Your task to perform on an android device: Clear the cart on costco.com. Search for sony triple a on costco.com, select the first entry, and add it to the cart. Image 0: 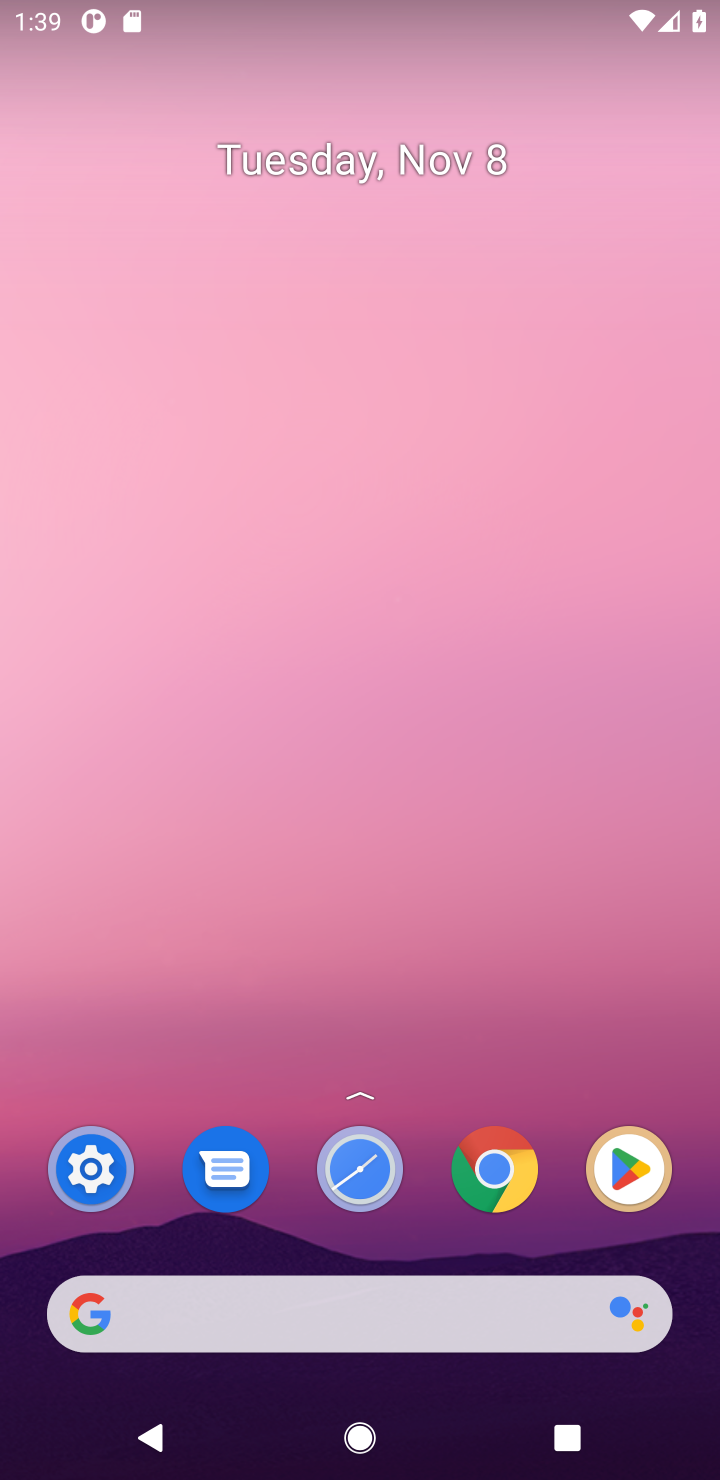
Step 0: click (477, 1163)
Your task to perform on an android device: Clear the cart on costco.com. Search for sony triple a on costco.com, select the first entry, and add it to the cart. Image 1: 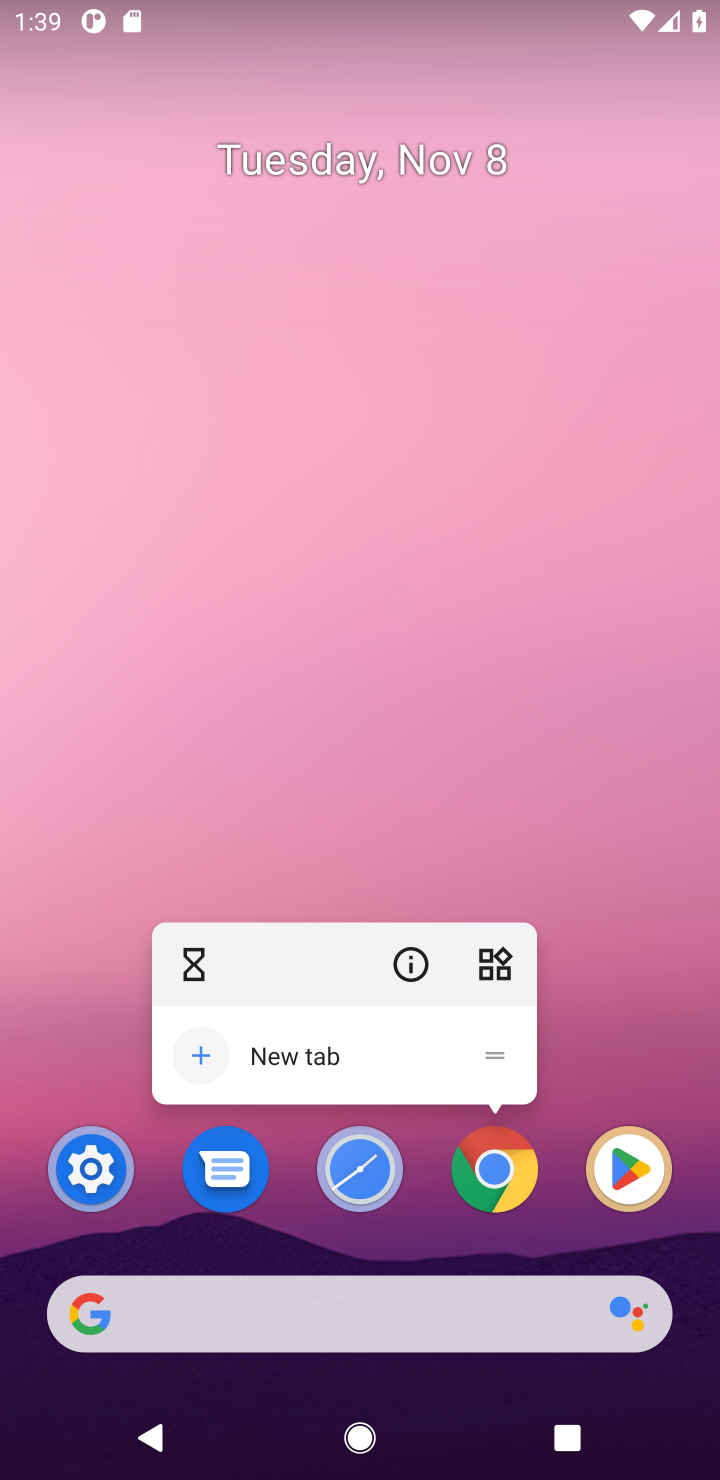
Step 1: click (477, 1164)
Your task to perform on an android device: Clear the cart on costco.com. Search for sony triple a on costco.com, select the first entry, and add it to the cart. Image 2: 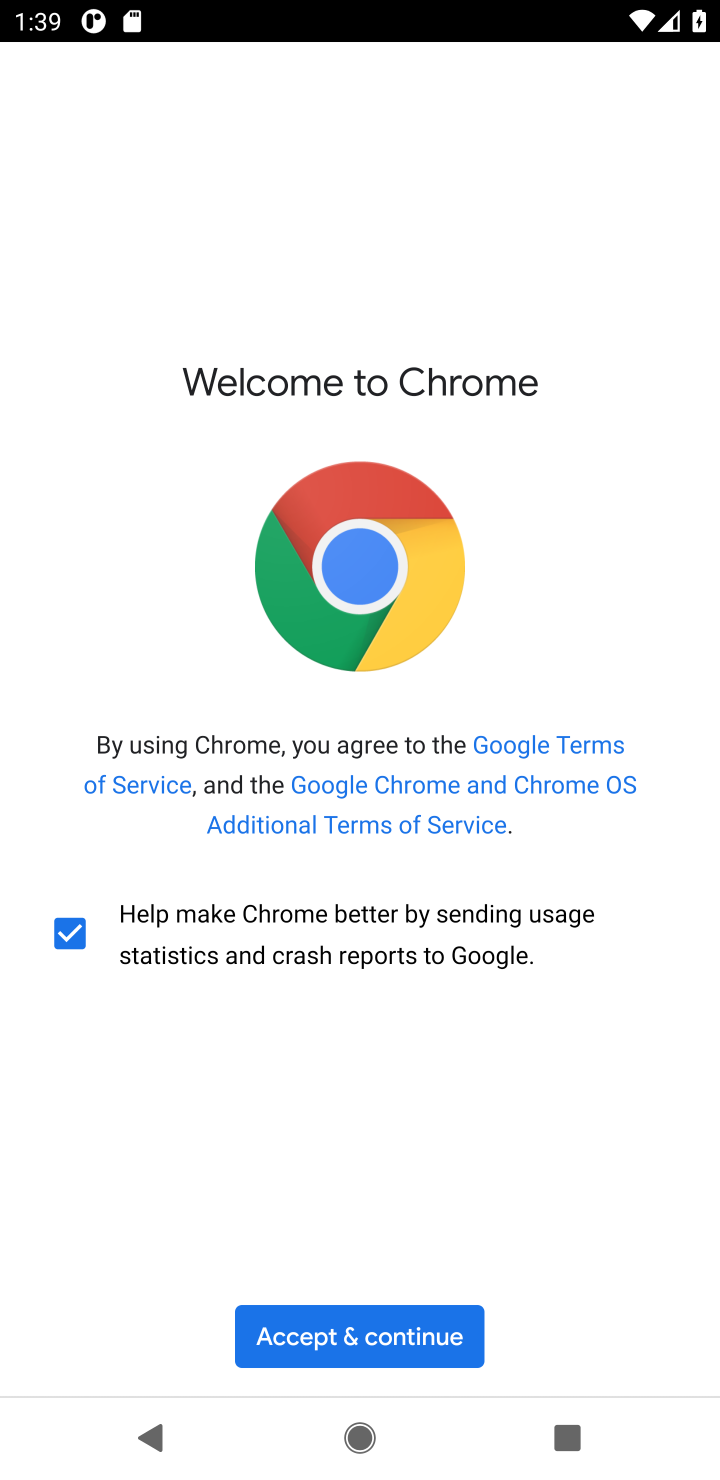
Step 2: click (367, 1333)
Your task to perform on an android device: Clear the cart on costco.com. Search for sony triple a on costco.com, select the first entry, and add it to the cart. Image 3: 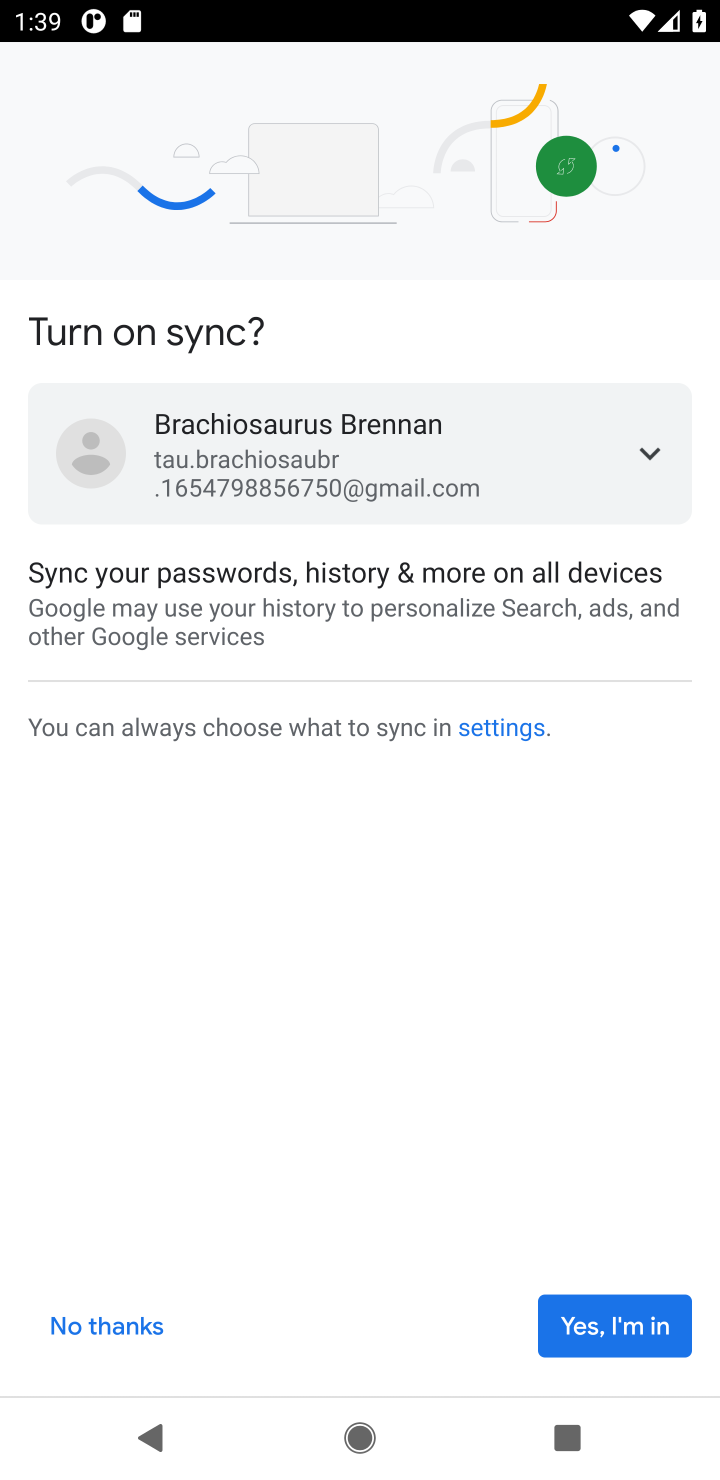
Step 3: click (580, 1332)
Your task to perform on an android device: Clear the cart on costco.com. Search for sony triple a on costco.com, select the first entry, and add it to the cart. Image 4: 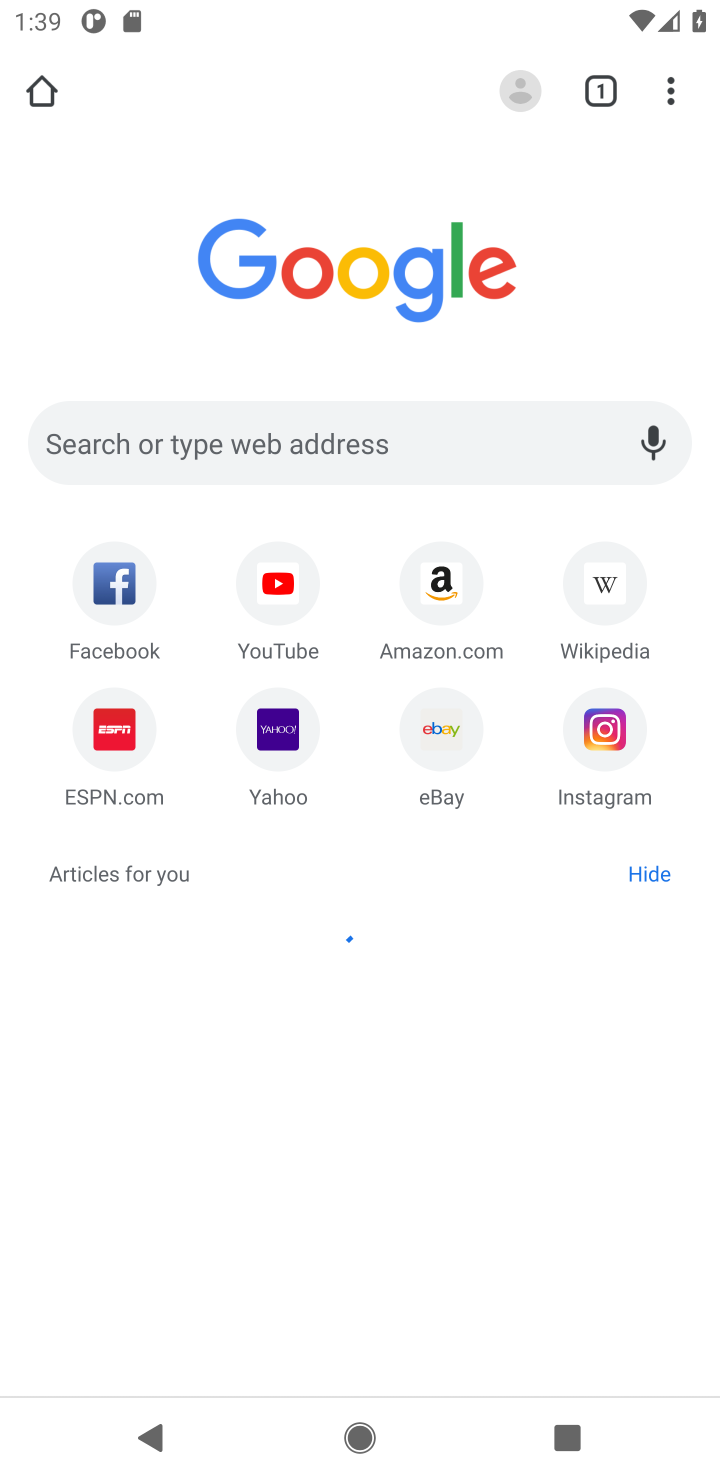
Step 4: click (356, 418)
Your task to perform on an android device: Clear the cart on costco.com. Search for sony triple a on costco.com, select the first entry, and add it to the cart. Image 5: 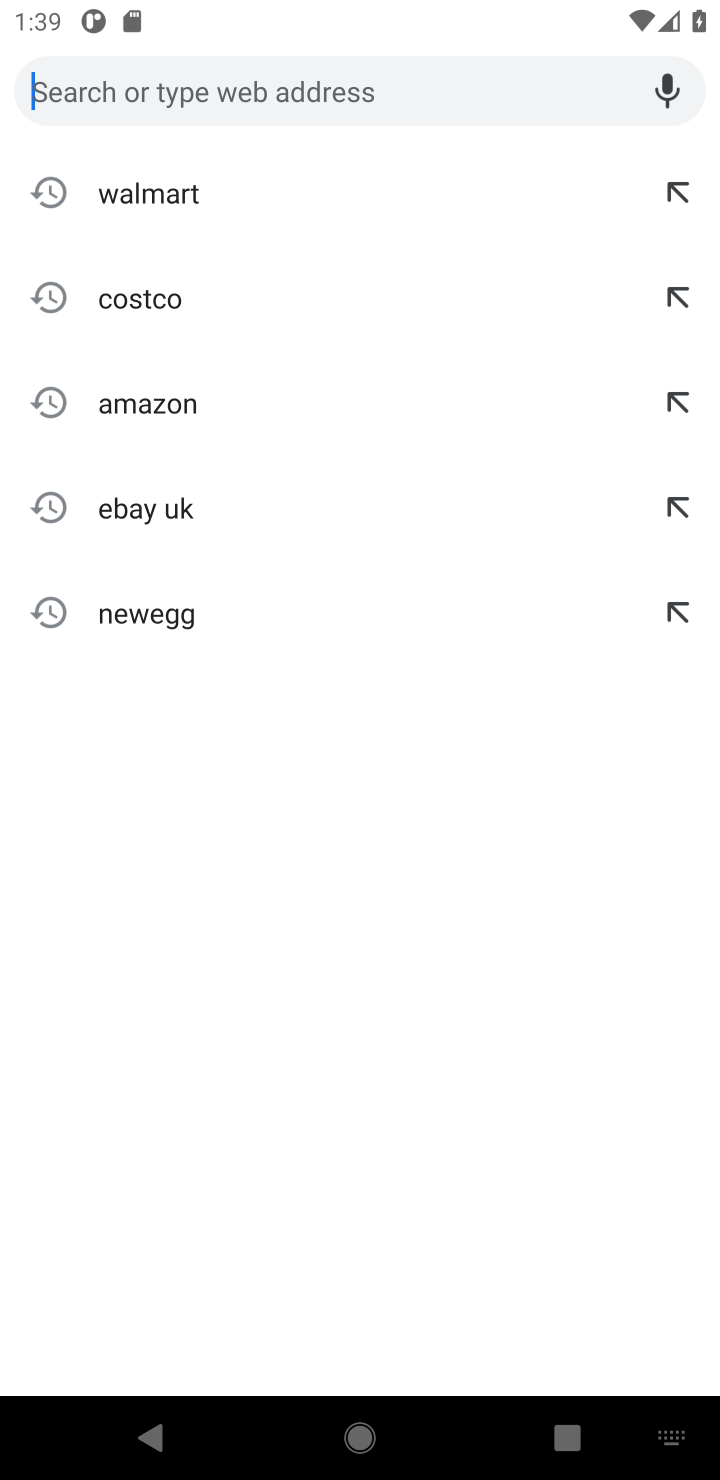
Step 5: type "costco"
Your task to perform on an android device: Clear the cart on costco.com. Search for sony triple a on costco.com, select the first entry, and add it to the cart. Image 6: 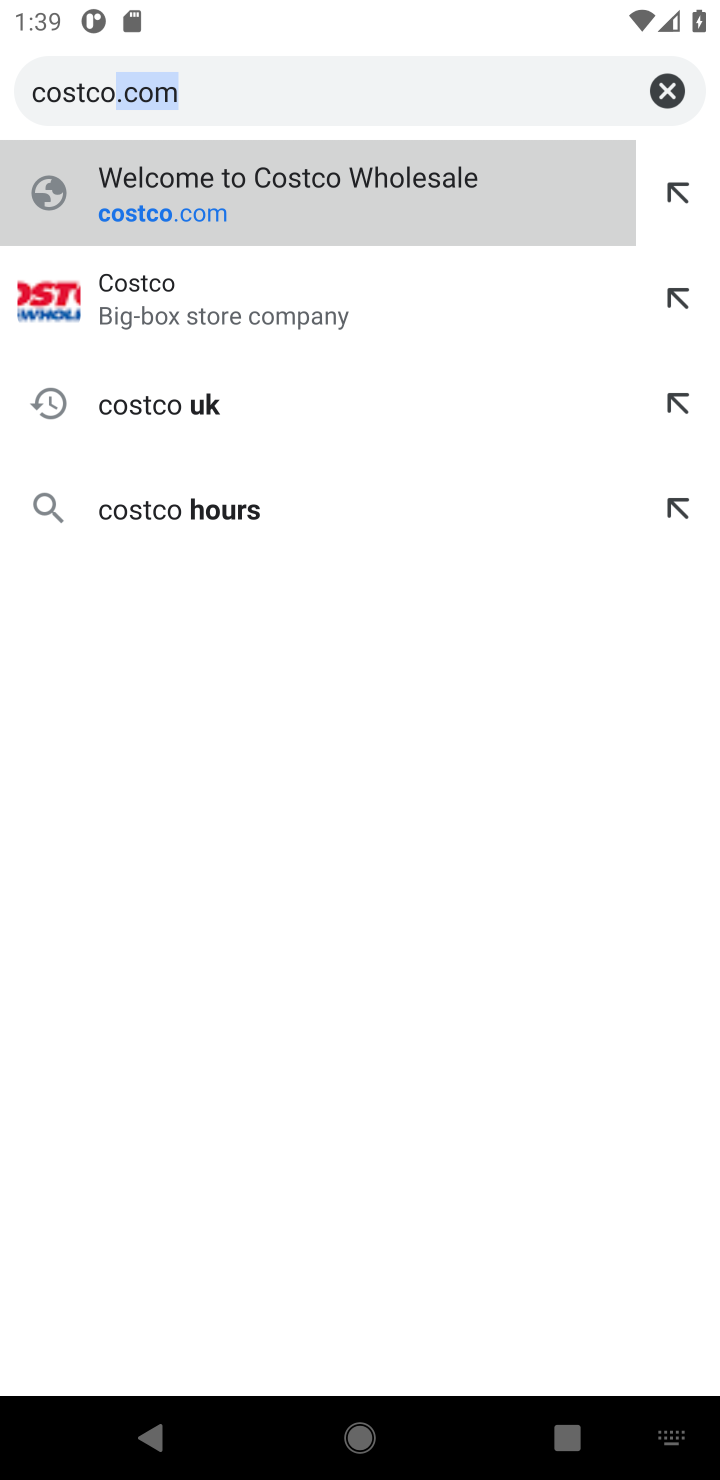
Step 6: click (176, 200)
Your task to perform on an android device: Clear the cart on costco.com. Search for sony triple a on costco.com, select the first entry, and add it to the cart. Image 7: 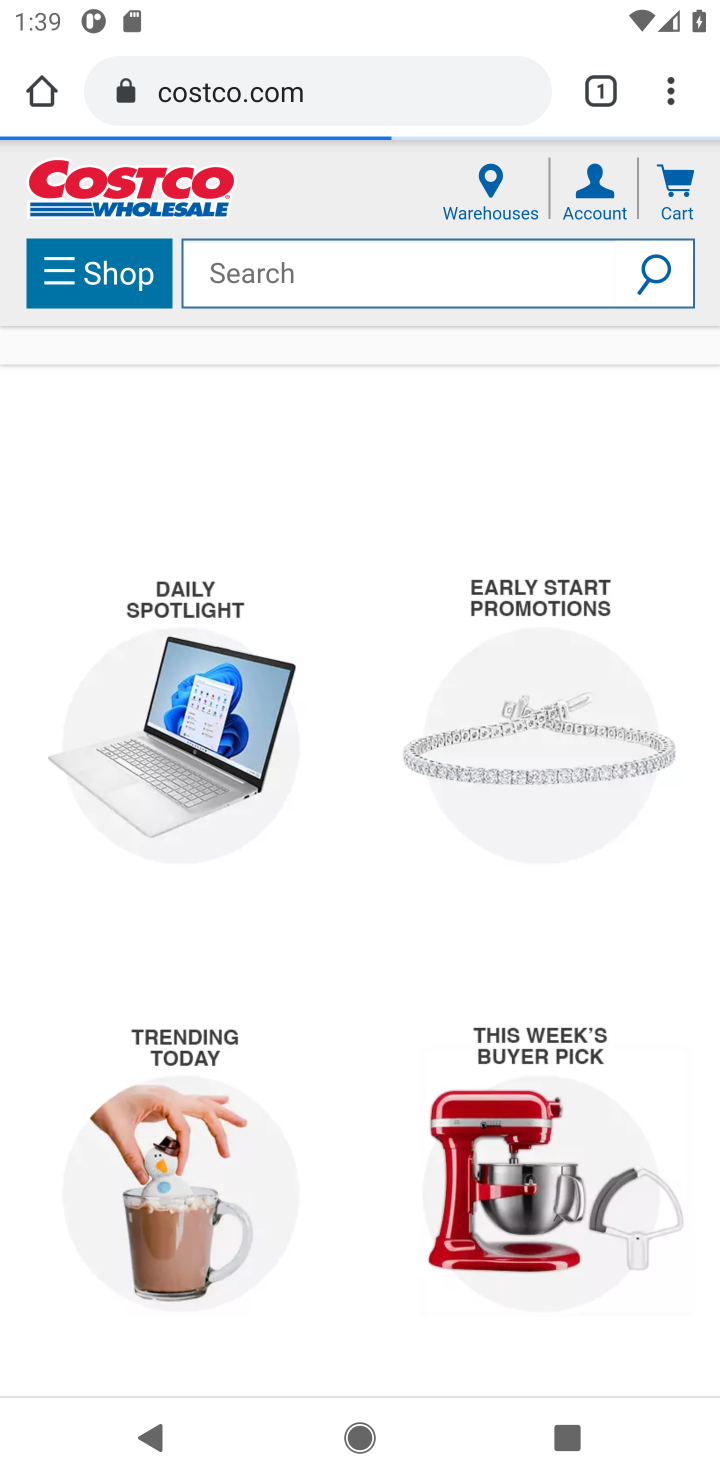
Step 7: click (386, 293)
Your task to perform on an android device: Clear the cart on costco.com. Search for sony triple a on costco.com, select the first entry, and add it to the cart. Image 8: 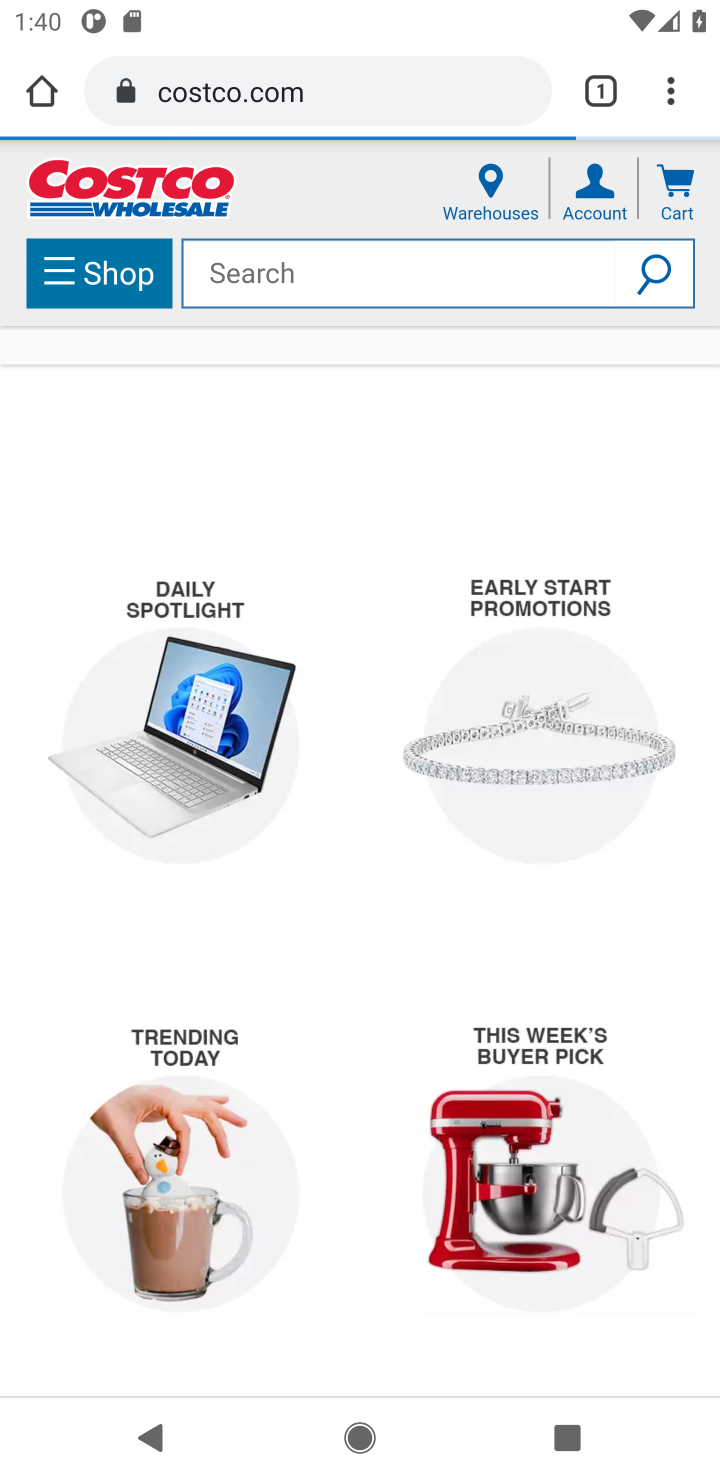
Step 8: type "sony aaa"
Your task to perform on an android device: Clear the cart on costco.com. Search for sony triple a on costco.com, select the first entry, and add it to the cart. Image 9: 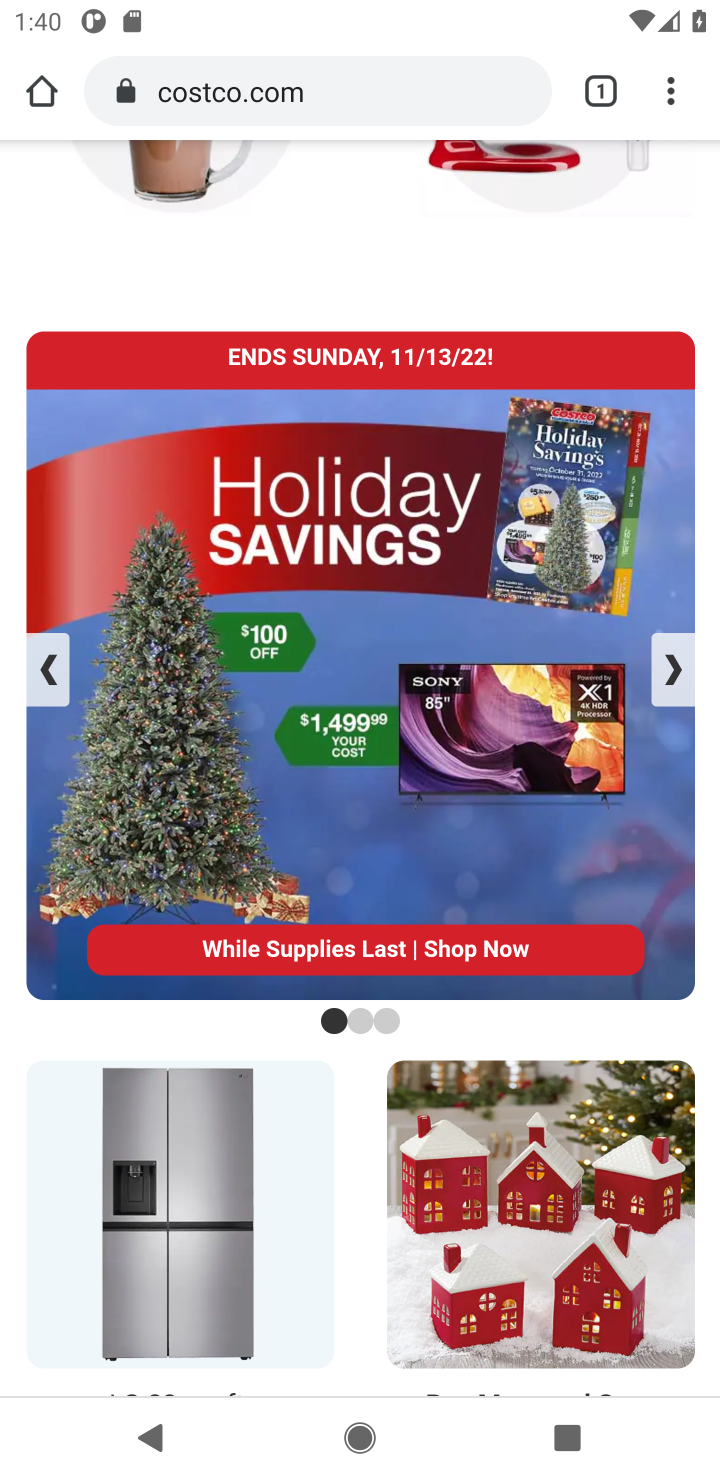
Step 9: drag from (414, 267) to (611, 761)
Your task to perform on an android device: Clear the cart on costco.com. Search for sony triple a on costco.com, select the first entry, and add it to the cart. Image 10: 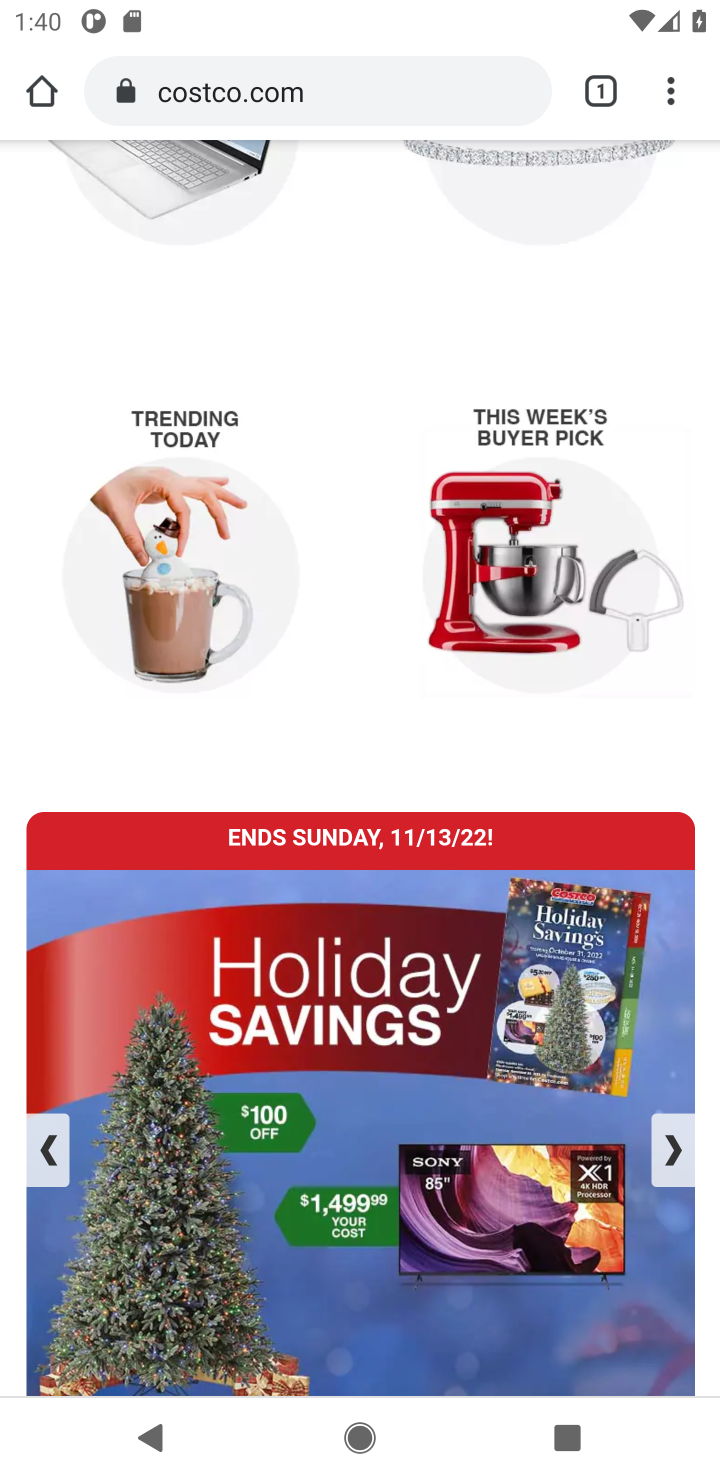
Step 10: drag from (398, 275) to (416, 829)
Your task to perform on an android device: Clear the cart on costco.com. Search for sony triple a on costco.com, select the first entry, and add it to the cart. Image 11: 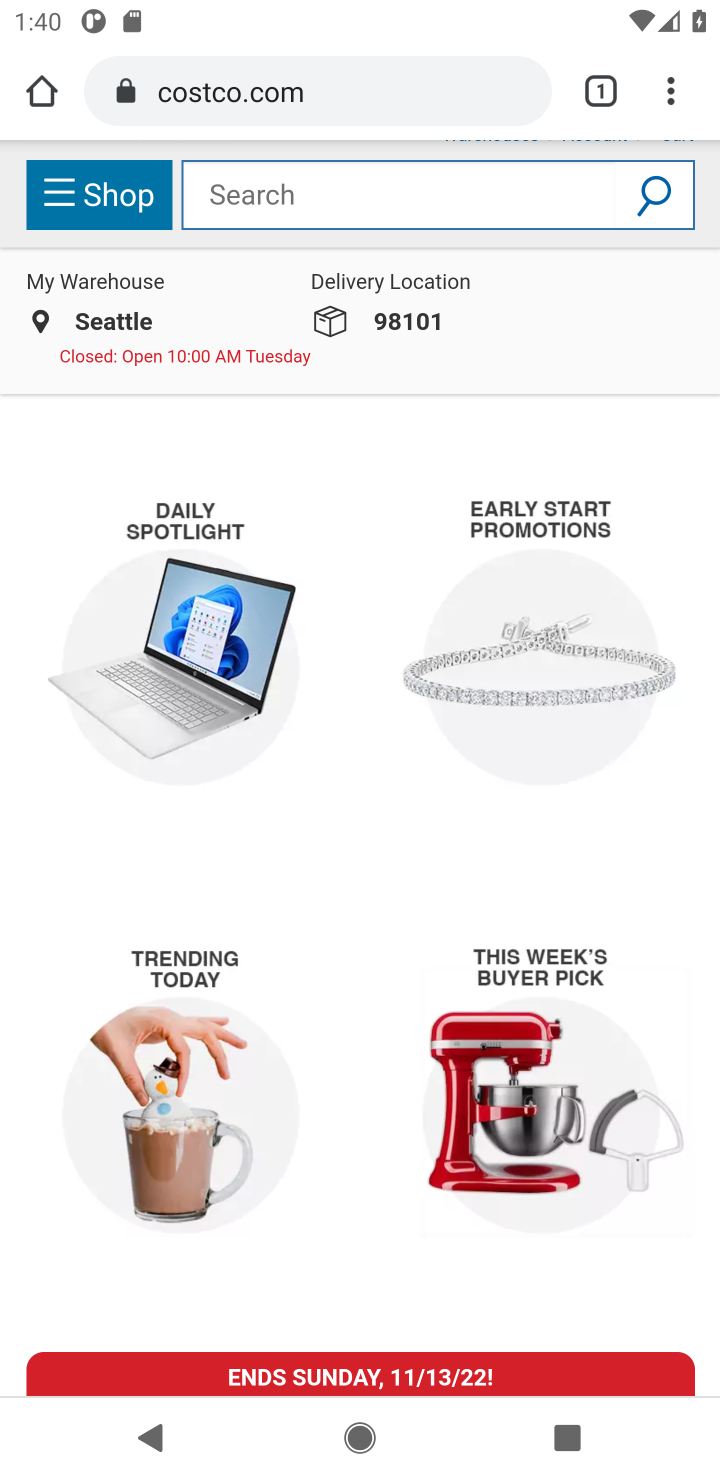
Step 11: click (371, 203)
Your task to perform on an android device: Clear the cart on costco.com. Search for sony triple a on costco.com, select the first entry, and add it to the cart. Image 12: 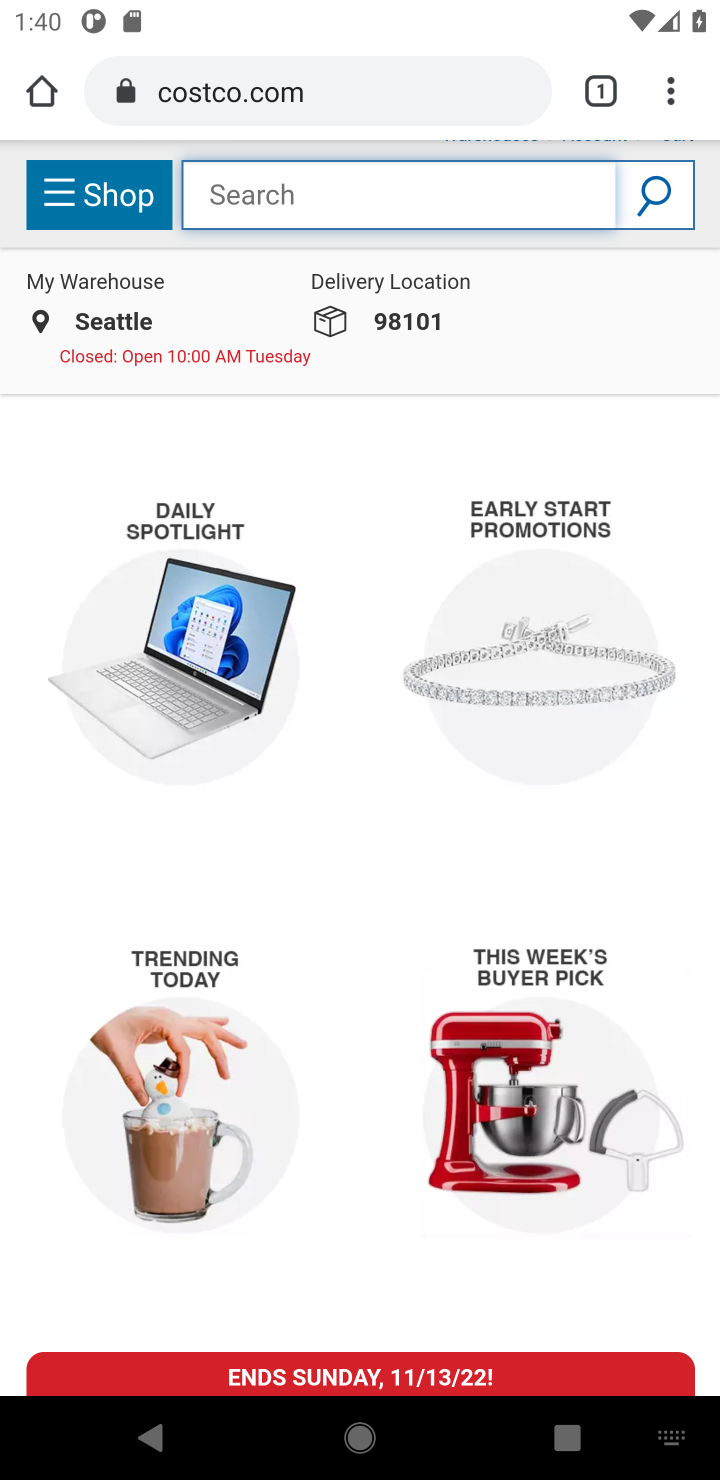
Step 12: type "sony aaa"
Your task to perform on an android device: Clear the cart on costco.com. Search for sony triple a on costco.com, select the first entry, and add it to the cart. Image 13: 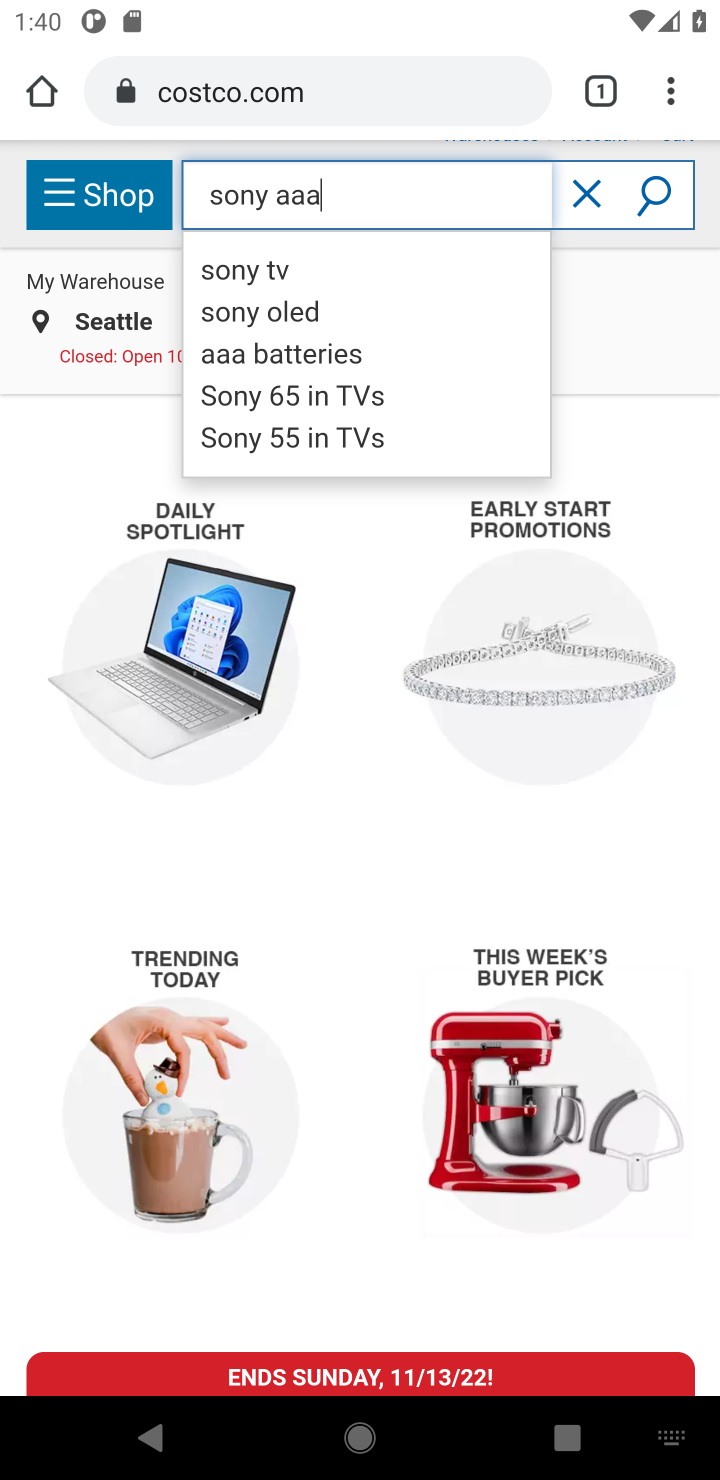
Step 13: press enter
Your task to perform on an android device: Clear the cart on costco.com. Search for sony triple a on costco.com, select the first entry, and add it to the cart. Image 14: 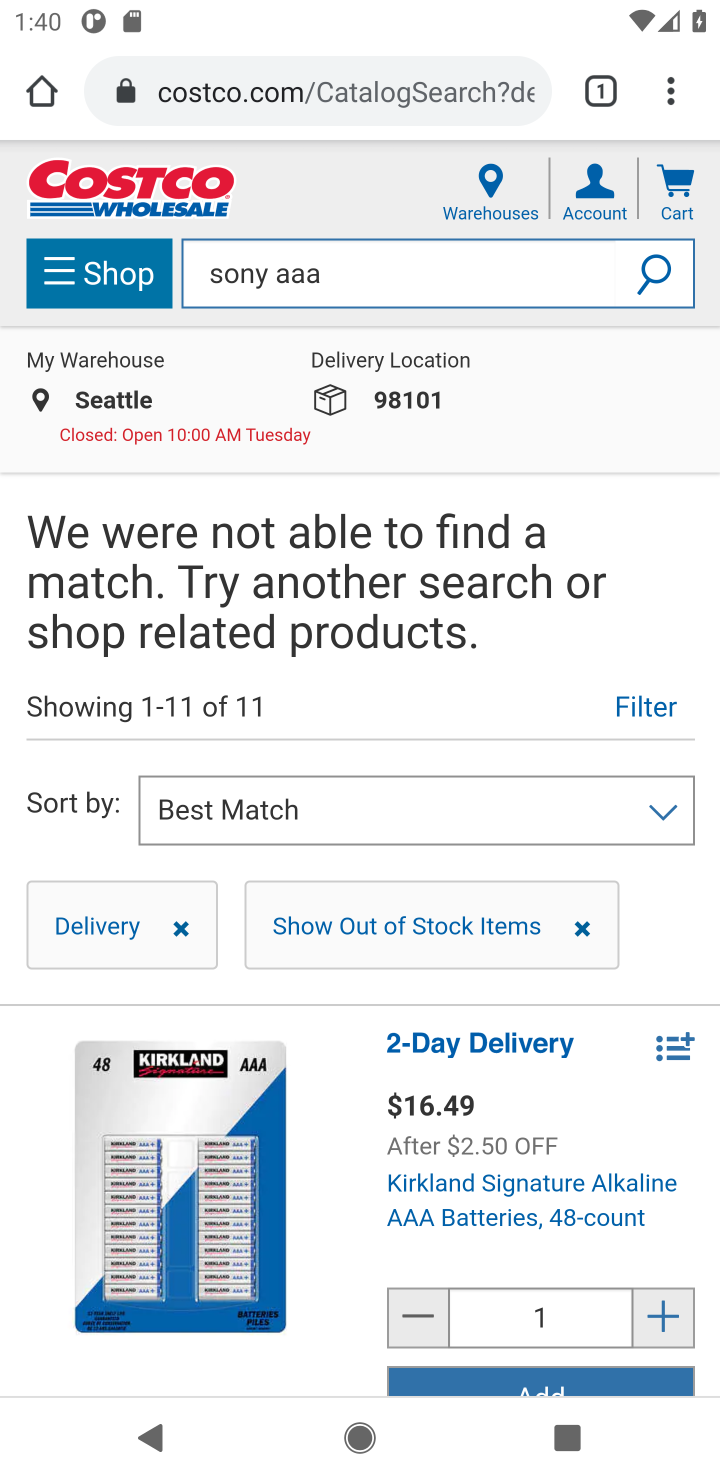
Step 14: click (568, 1388)
Your task to perform on an android device: Clear the cart on costco.com. Search for sony triple a on costco.com, select the first entry, and add it to the cart. Image 15: 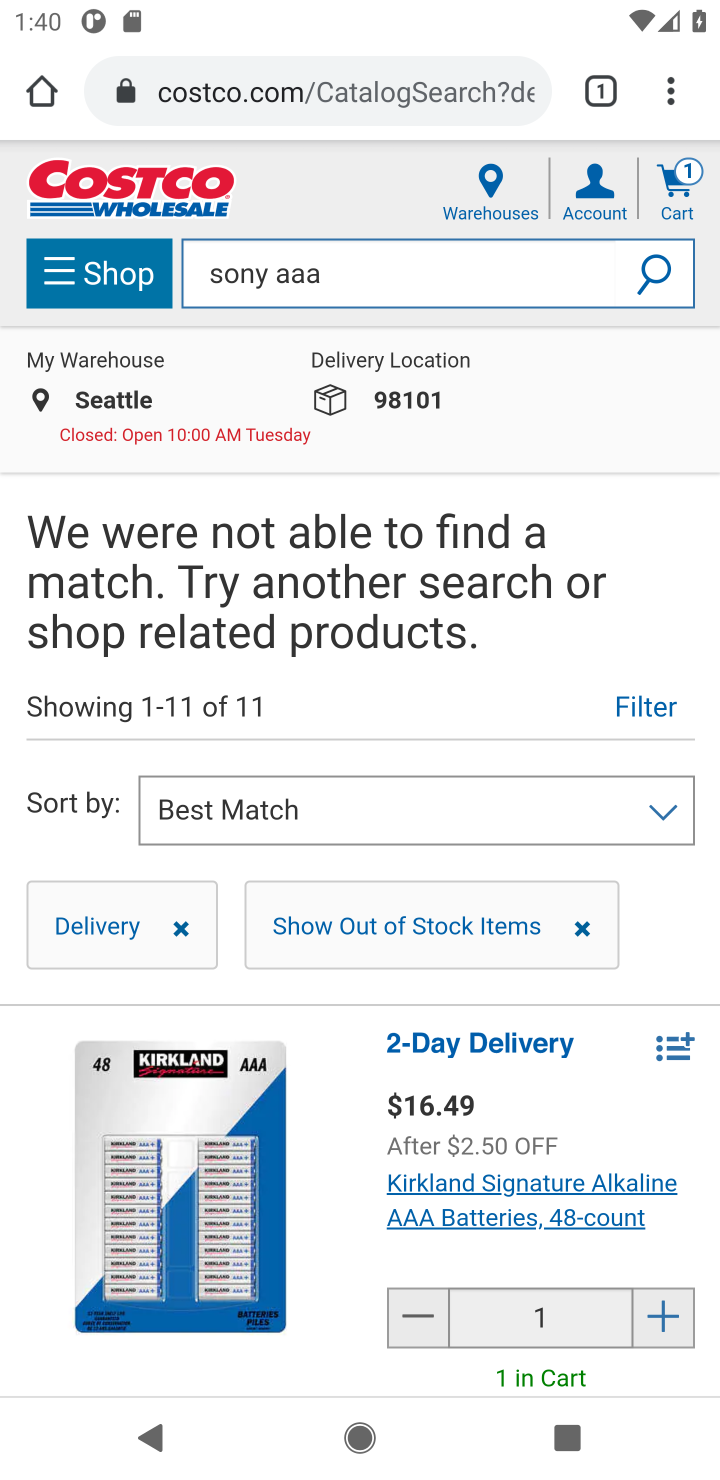
Step 15: click (675, 193)
Your task to perform on an android device: Clear the cart on costco.com. Search for sony triple a on costco.com, select the first entry, and add it to the cart. Image 16: 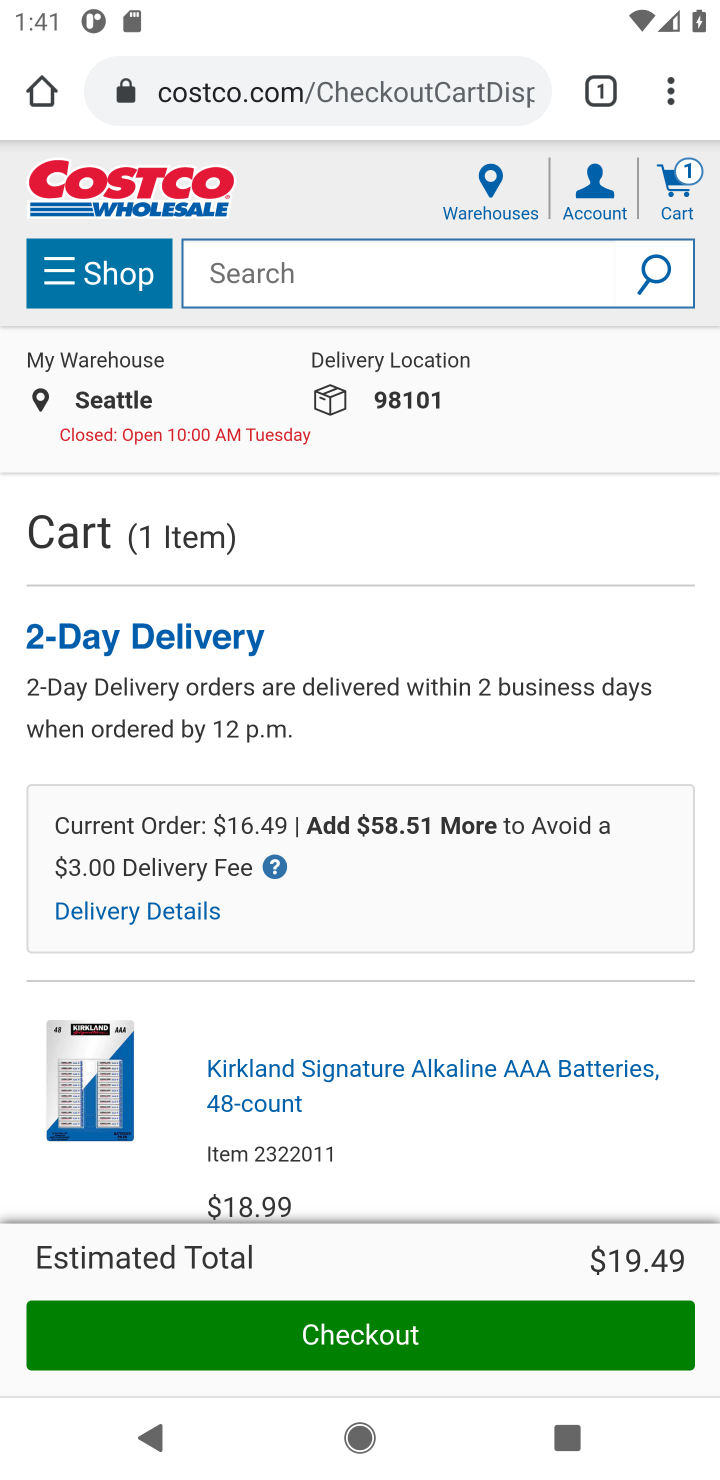
Step 16: task complete